Your task to perform on an android device: manage bookmarks in the chrome app Image 0: 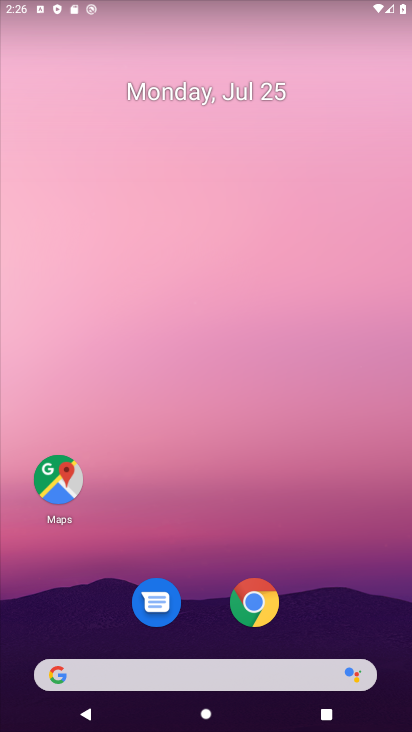
Step 0: click (243, 603)
Your task to perform on an android device: manage bookmarks in the chrome app Image 1: 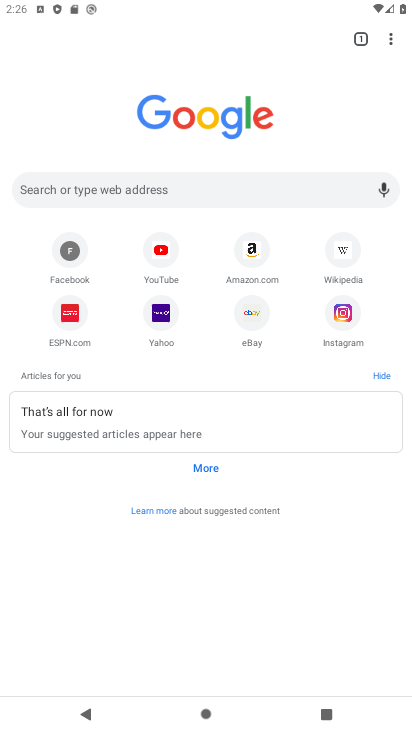
Step 1: click (388, 43)
Your task to perform on an android device: manage bookmarks in the chrome app Image 2: 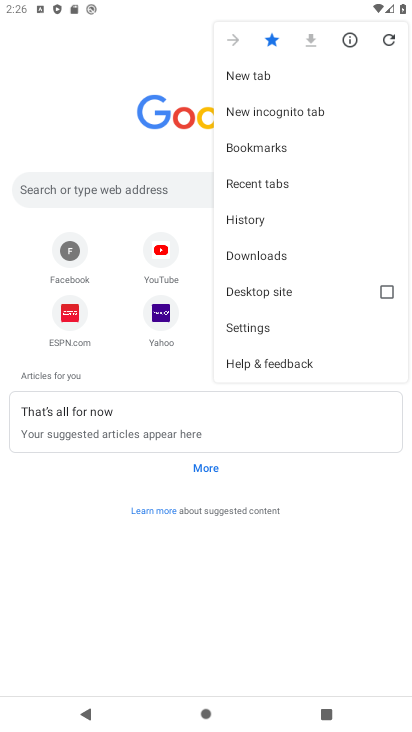
Step 2: click (278, 152)
Your task to perform on an android device: manage bookmarks in the chrome app Image 3: 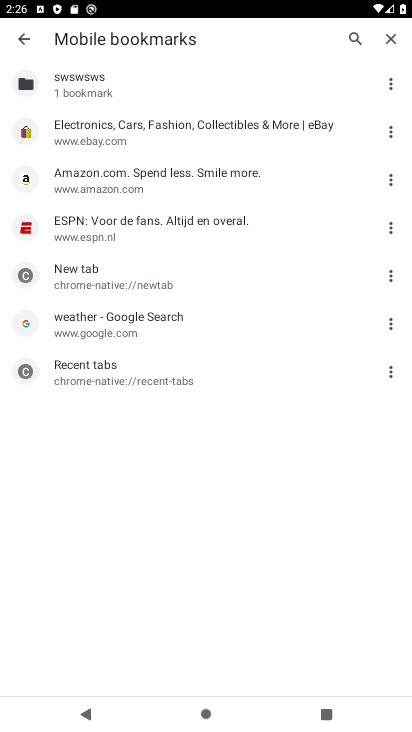
Step 3: task complete